Your task to perform on an android device: turn on notifications settings in the gmail app Image 0: 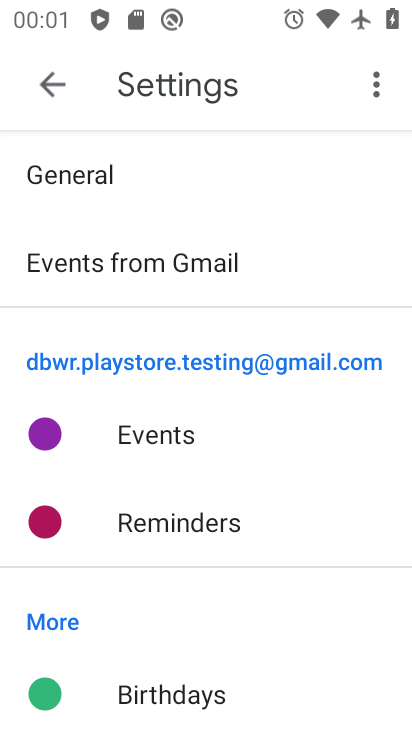
Step 0: press home button
Your task to perform on an android device: turn on notifications settings in the gmail app Image 1: 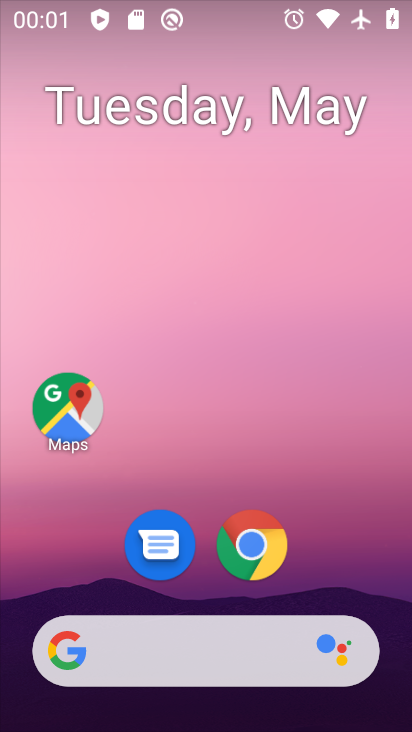
Step 1: drag from (331, 589) to (322, 0)
Your task to perform on an android device: turn on notifications settings in the gmail app Image 2: 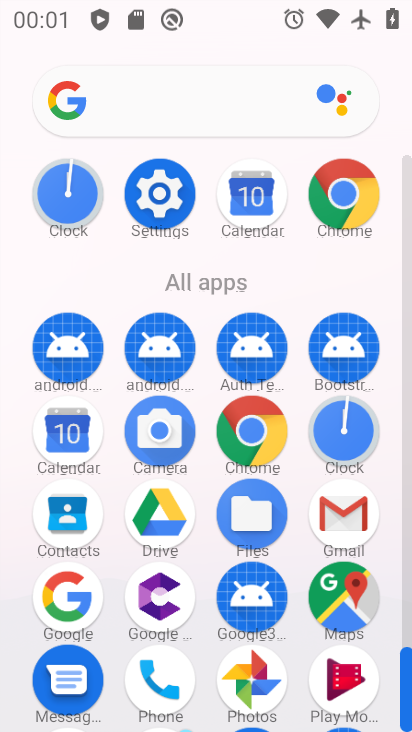
Step 2: click (331, 497)
Your task to perform on an android device: turn on notifications settings in the gmail app Image 3: 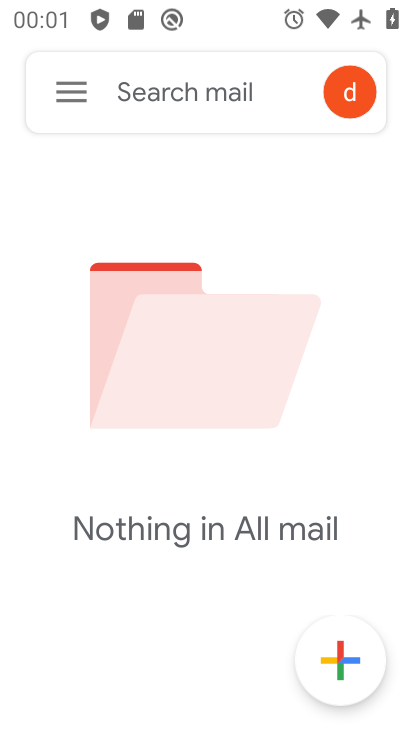
Step 3: click (69, 104)
Your task to perform on an android device: turn on notifications settings in the gmail app Image 4: 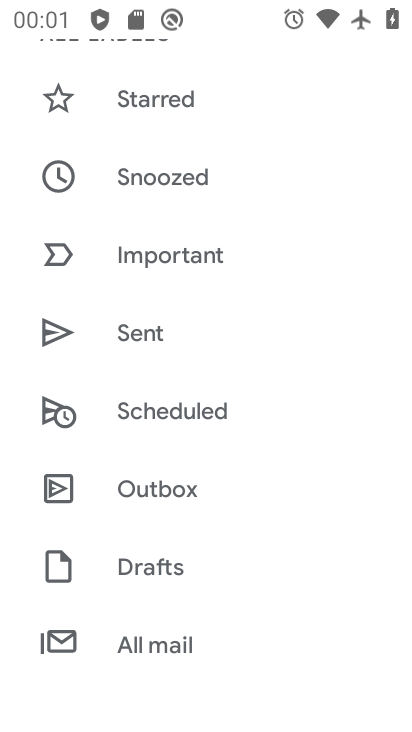
Step 4: drag from (171, 647) to (234, 253)
Your task to perform on an android device: turn on notifications settings in the gmail app Image 5: 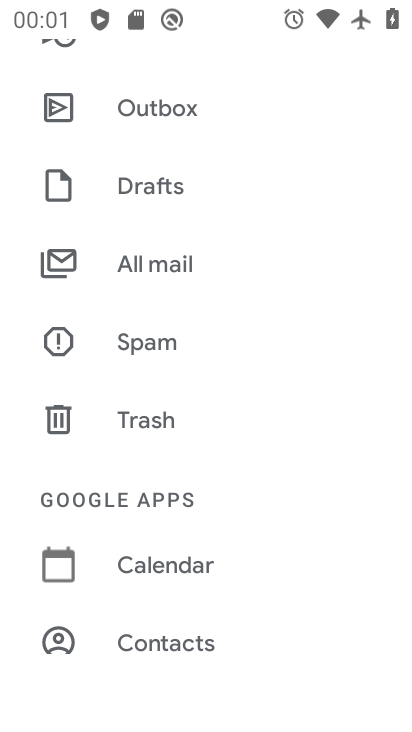
Step 5: drag from (167, 613) to (265, 260)
Your task to perform on an android device: turn on notifications settings in the gmail app Image 6: 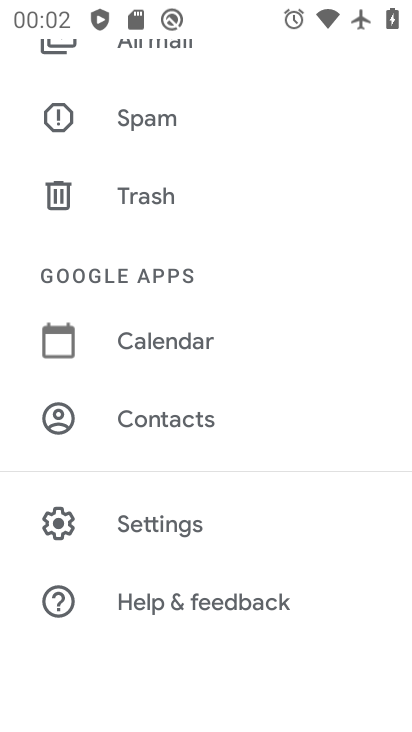
Step 6: click (216, 527)
Your task to perform on an android device: turn on notifications settings in the gmail app Image 7: 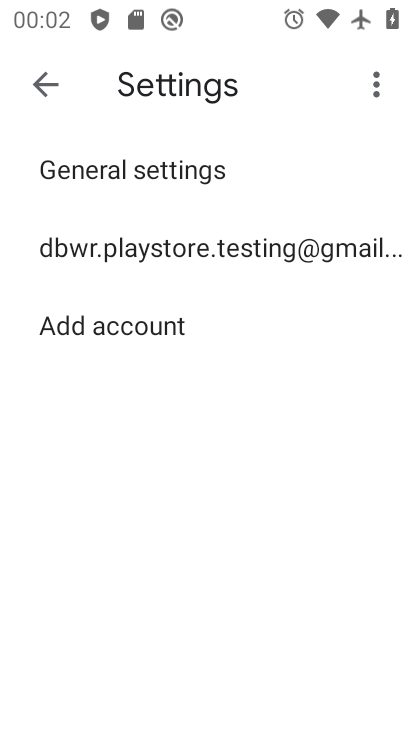
Step 7: click (171, 246)
Your task to perform on an android device: turn on notifications settings in the gmail app Image 8: 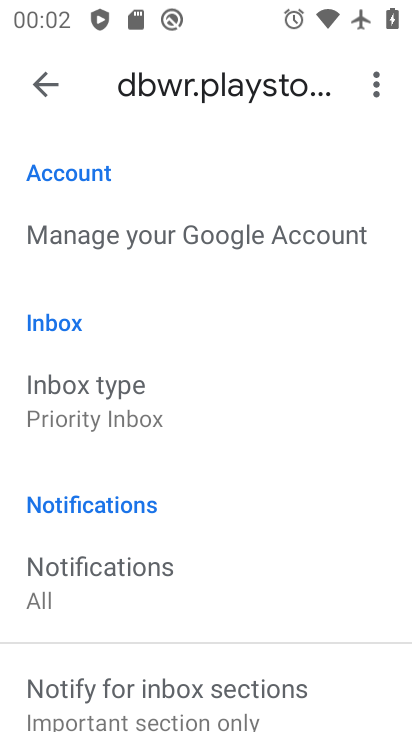
Step 8: drag from (173, 632) to (279, 313)
Your task to perform on an android device: turn on notifications settings in the gmail app Image 9: 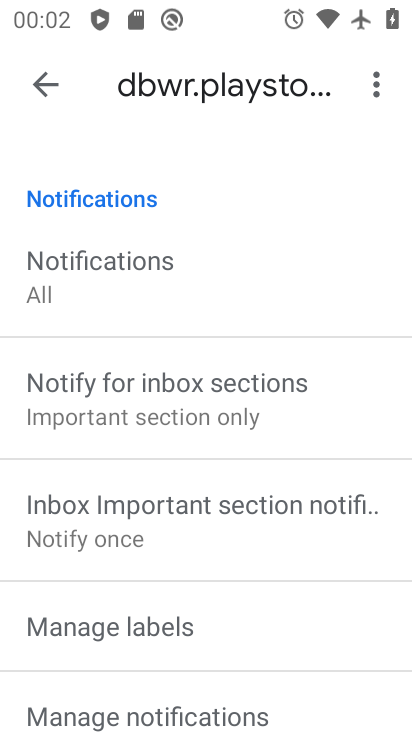
Step 9: click (132, 708)
Your task to perform on an android device: turn on notifications settings in the gmail app Image 10: 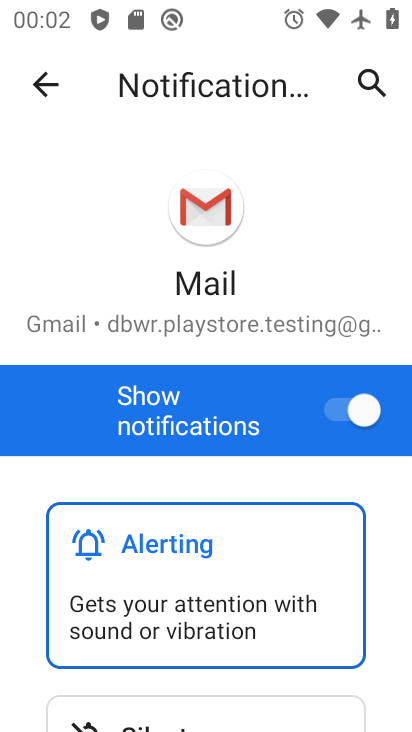
Step 10: task complete